Your task to perform on an android device: turn smart compose on in the gmail app Image 0: 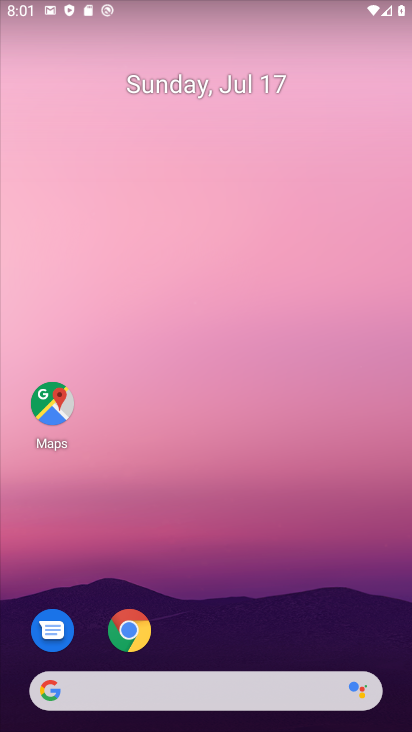
Step 0: drag from (264, 640) to (55, 1)
Your task to perform on an android device: turn smart compose on in the gmail app Image 1: 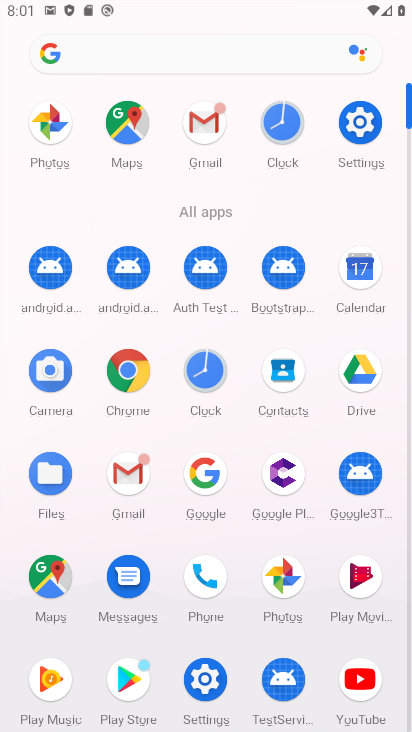
Step 1: click (122, 481)
Your task to perform on an android device: turn smart compose on in the gmail app Image 2: 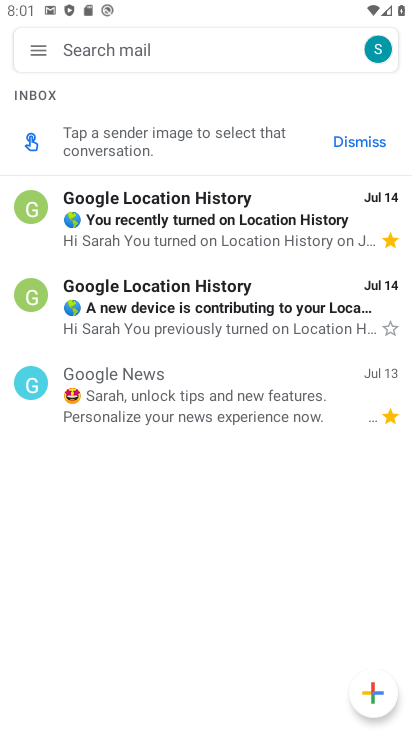
Step 2: click (42, 41)
Your task to perform on an android device: turn smart compose on in the gmail app Image 3: 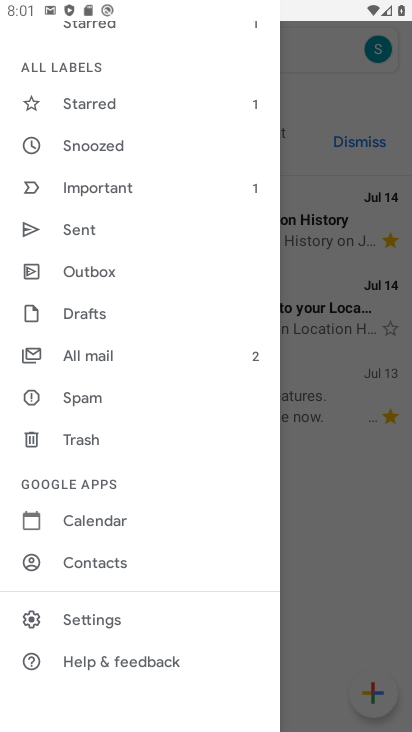
Step 3: click (86, 620)
Your task to perform on an android device: turn smart compose on in the gmail app Image 4: 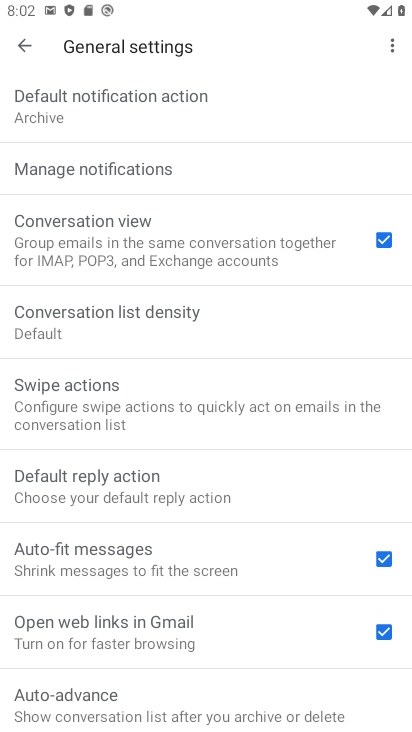
Step 4: click (22, 47)
Your task to perform on an android device: turn smart compose on in the gmail app Image 5: 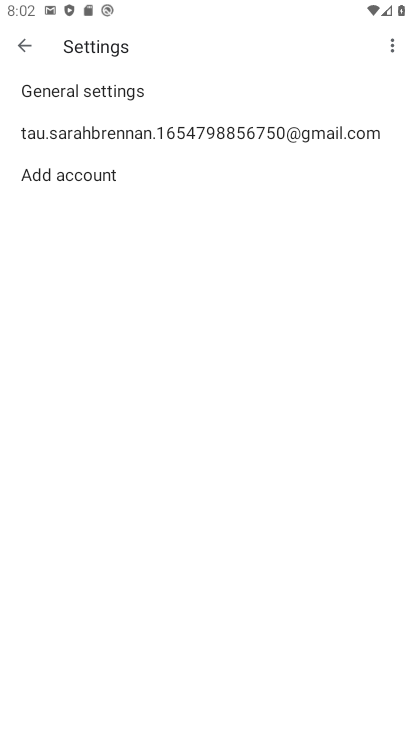
Step 5: click (132, 138)
Your task to perform on an android device: turn smart compose on in the gmail app Image 6: 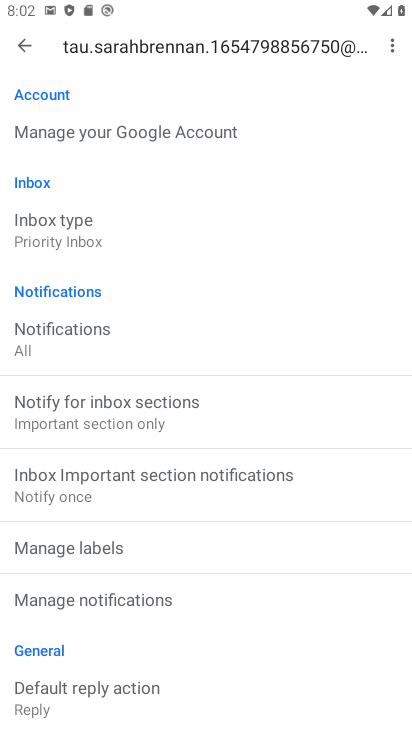
Step 6: task complete